Your task to perform on an android device: See recent photos Image 0: 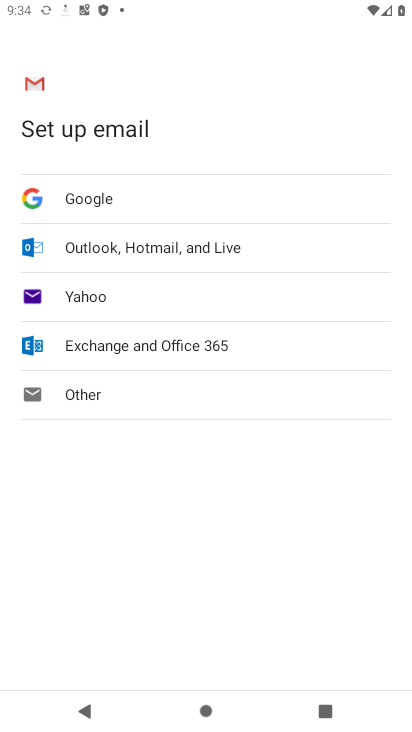
Step 0: press home button
Your task to perform on an android device: See recent photos Image 1: 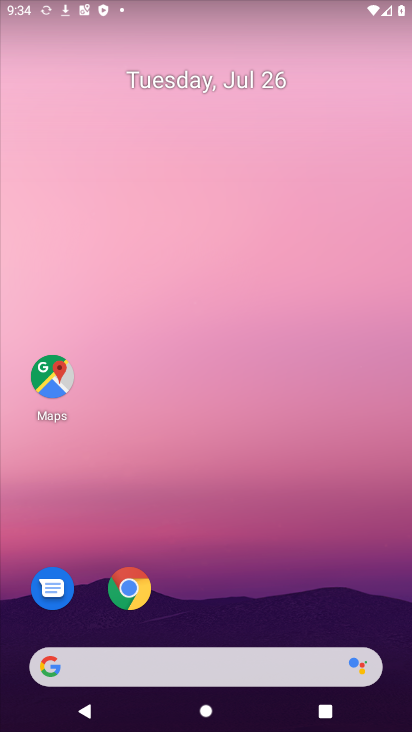
Step 1: drag from (198, 660) to (223, 81)
Your task to perform on an android device: See recent photos Image 2: 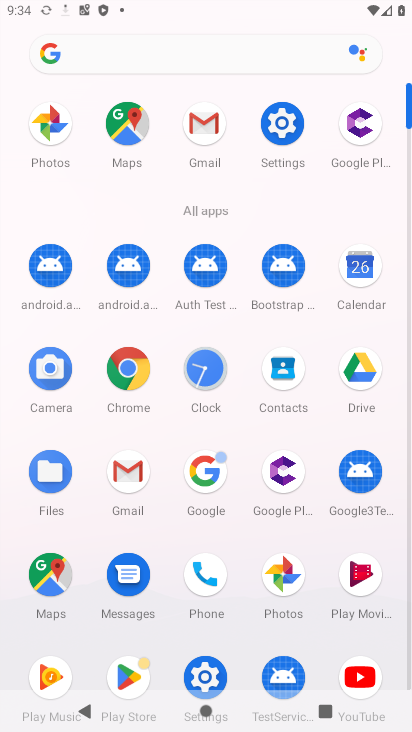
Step 2: click (51, 123)
Your task to perform on an android device: See recent photos Image 3: 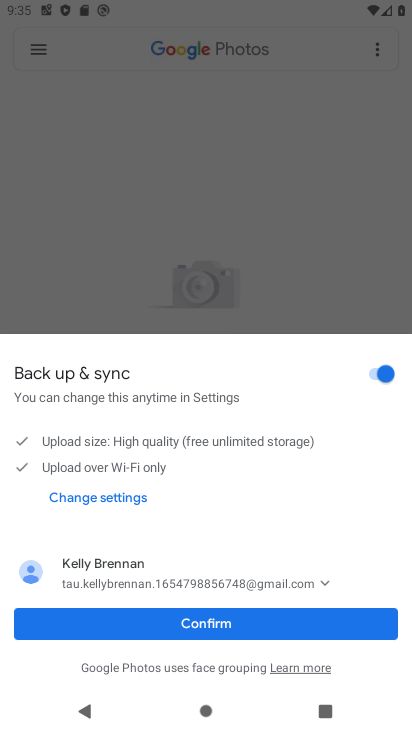
Step 3: click (193, 621)
Your task to perform on an android device: See recent photos Image 4: 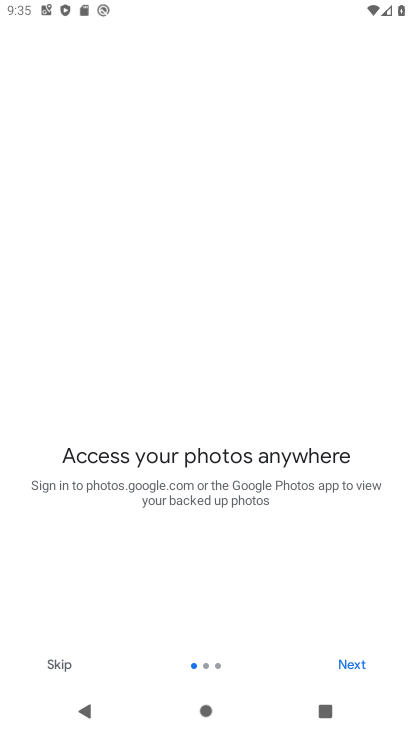
Step 4: click (345, 662)
Your task to perform on an android device: See recent photos Image 5: 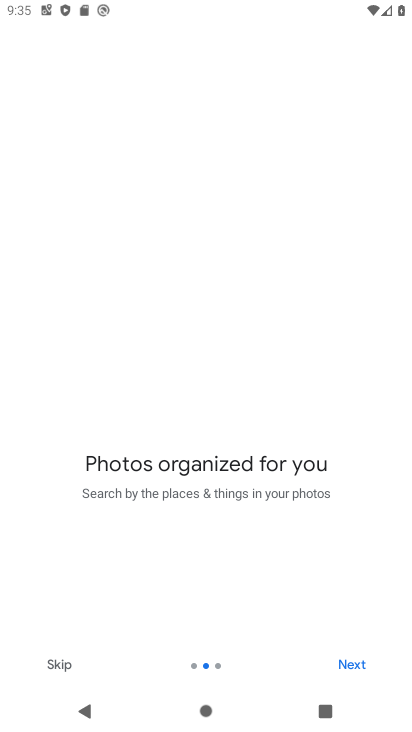
Step 5: click (345, 662)
Your task to perform on an android device: See recent photos Image 6: 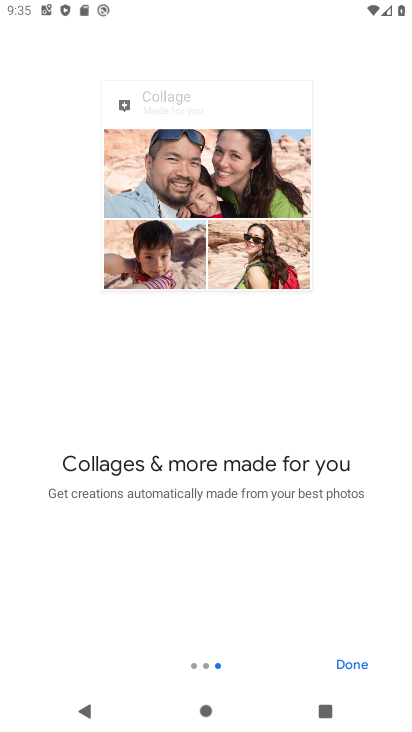
Step 6: click (345, 662)
Your task to perform on an android device: See recent photos Image 7: 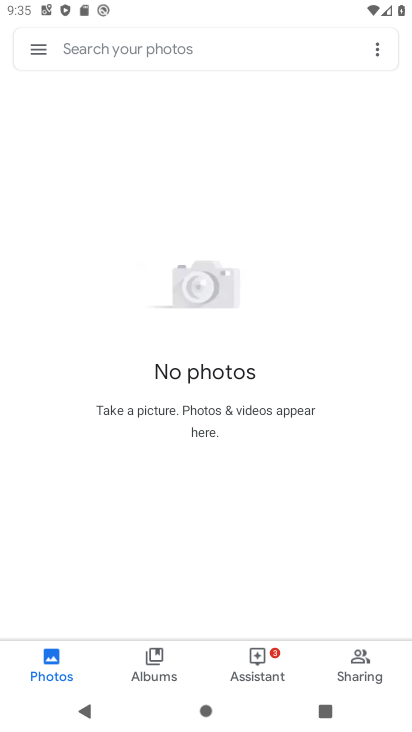
Step 7: click (156, 653)
Your task to perform on an android device: See recent photos Image 8: 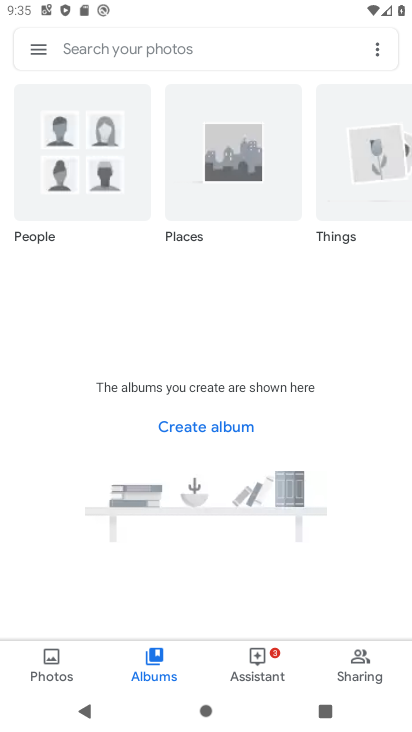
Step 8: click (229, 159)
Your task to perform on an android device: See recent photos Image 9: 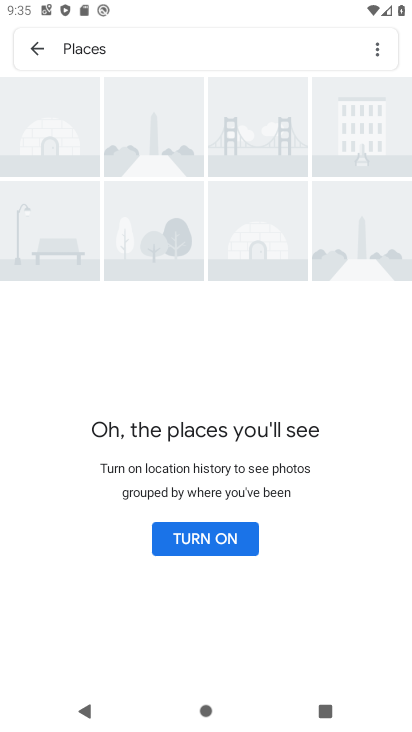
Step 9: press back button
Your task to perform on an android device: See recent photos Image 10: 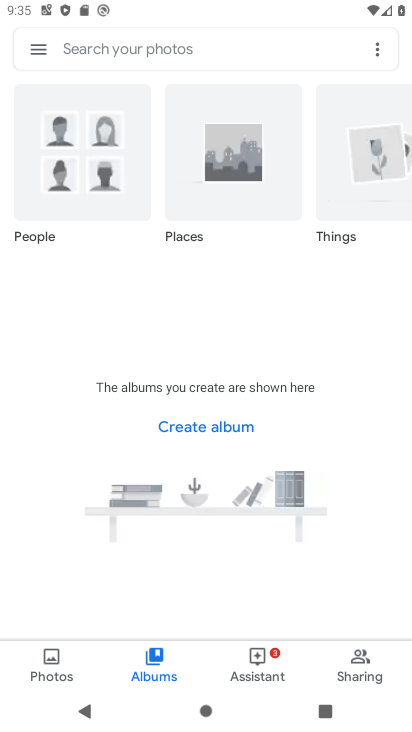
Step 10: click (358, 163)
Your task to perform on an android device: See recent photos Image 11: 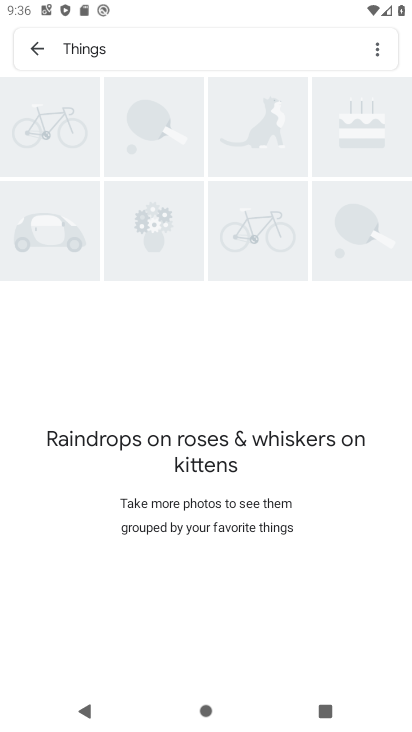
Step 11: press back button
Your task to perform on an android device: See recent photos Image 12: 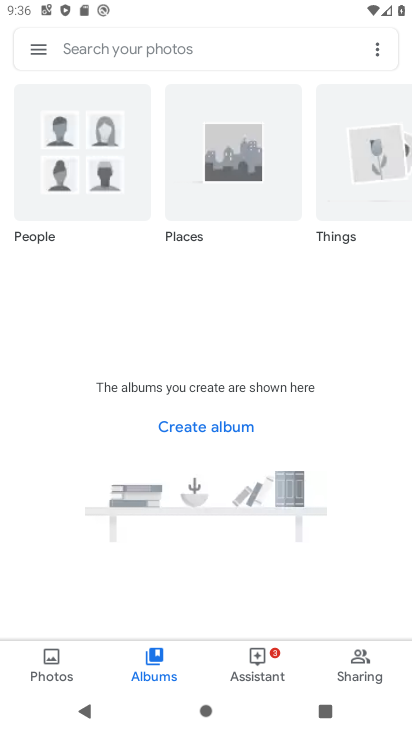
Step 12: drag from (356, 169) to (85, 205)
Your task to perform on an android device: See recent photos Image 13: 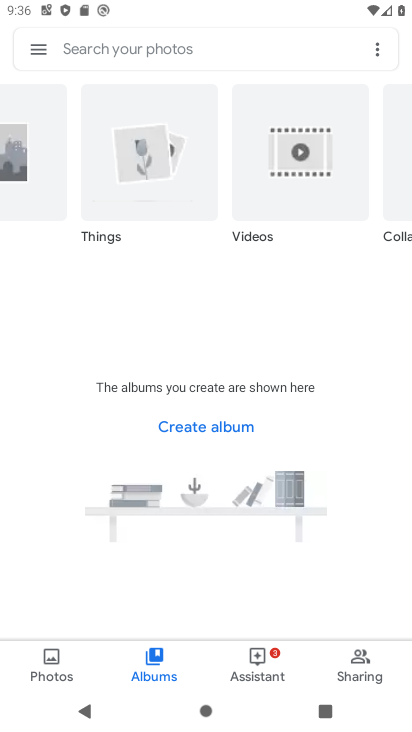
Step 13: click (299, 173)
Your task to perform on an android device: See recent photos Image 14: 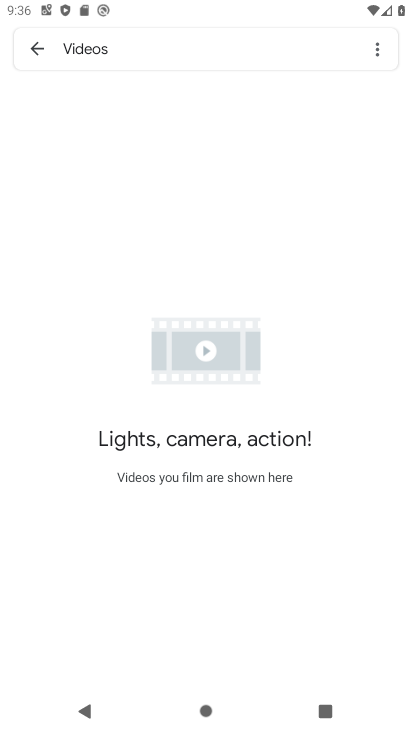
Step 14: press back button
Your task to perform on an android device: See recent photos Image 15: 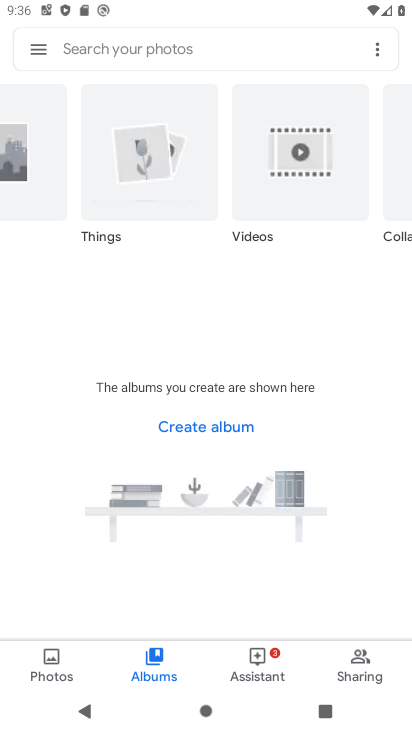
Step 15: click (45, 658)
Your task to perform on an android device: See recent photos Image 16: 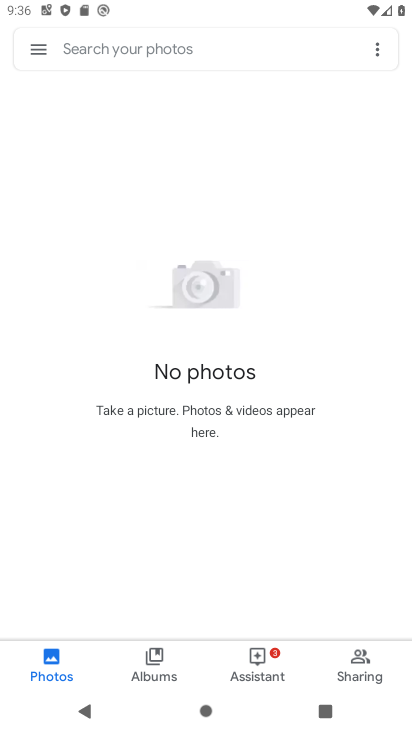
Step 16: click (203, 55)
Your task to perform on an android device: See recent photos Image 17: 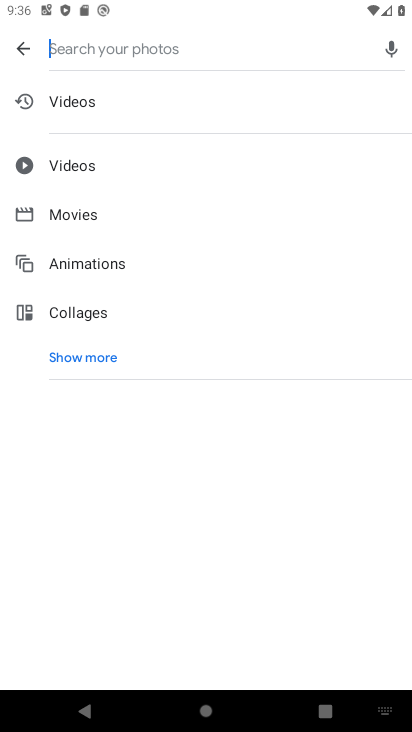
Step 17: click (97, 311)
Your task to perform on an android device: See recent photos Image 18: 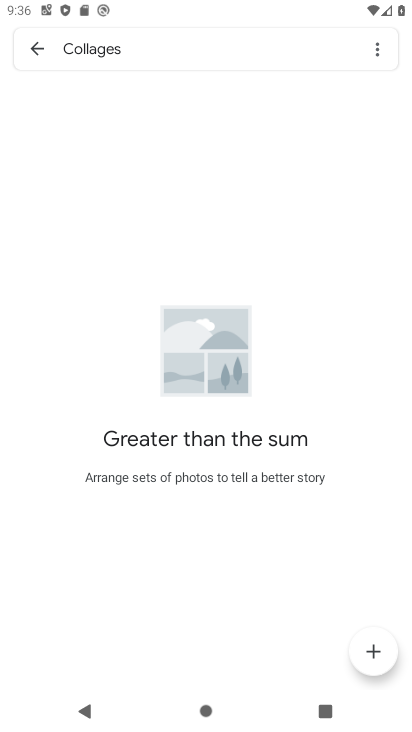
Step 18: task complete